Your task to perform on an android device: open wifi settings Image 0: 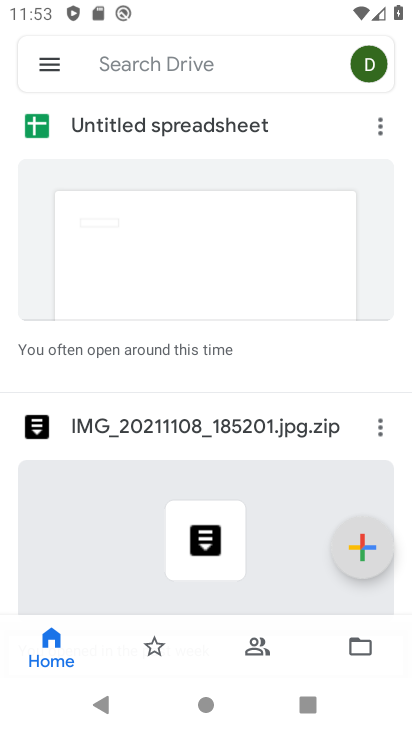
Step 0: press home button
Your task to perform on an android device: open wifi settings Image 1: 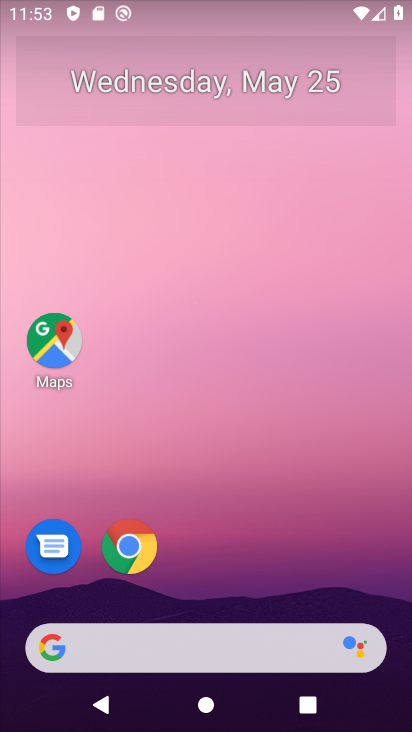
Step 1: drag from (263, 714) to (348, 168)
Your task to perform on an android device: open wifi settings Image 2: 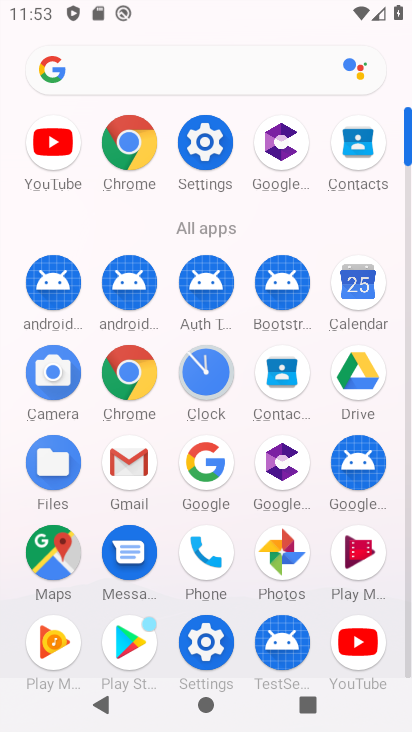
Step 2: click (206, 134)
Your task to perform on an android device: open wifi settings Image 3: 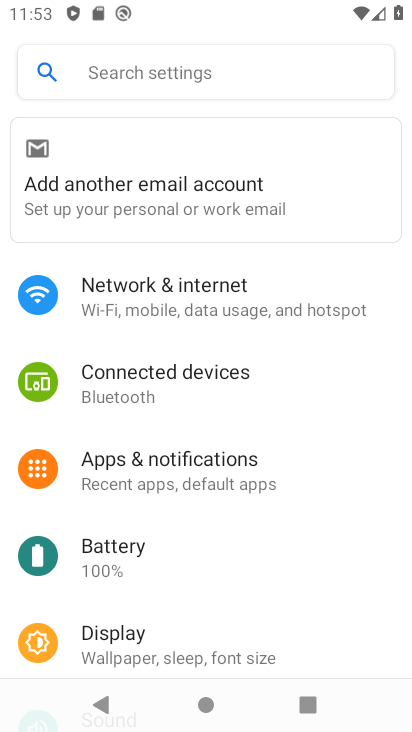
Step 3: click (205, 304)
Your task to perform on an android device: open wifi settings Image 4: 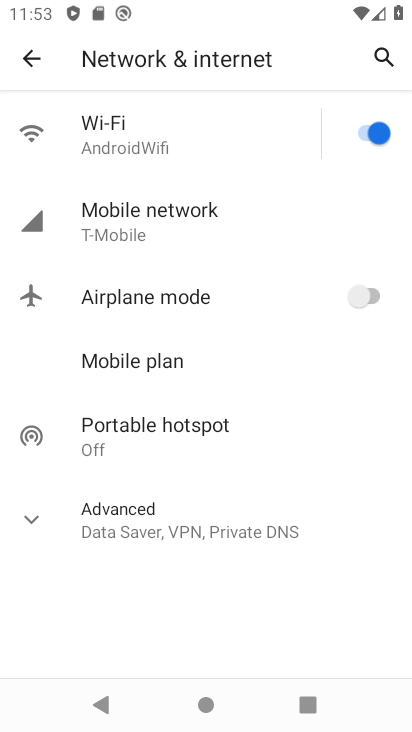
Step 4: click (136, 145)
Your task to perform on an android device: open wifi settings Image 5: 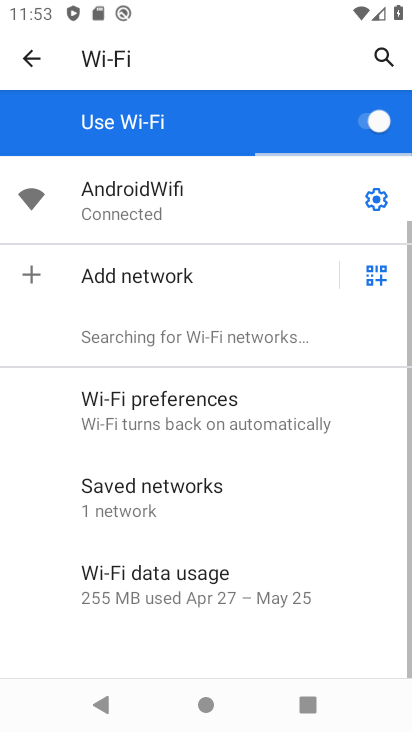
Step 5: click (378, 197)
Your task to perform on an android device: open wifi settings Image 6: 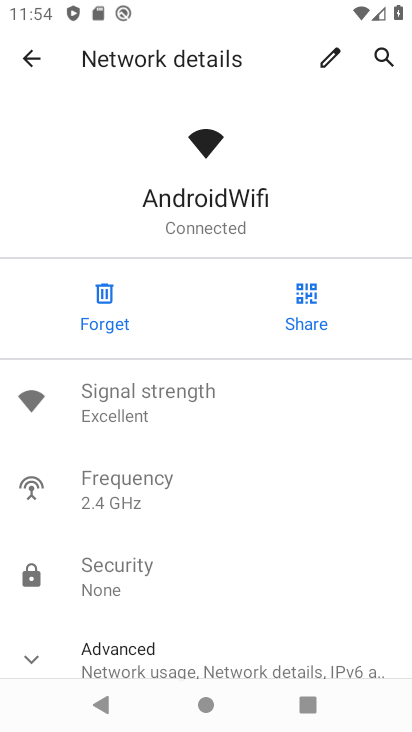
Step 6: task complete